Your task to perform on an android device: Open ESPN.com Image 0: 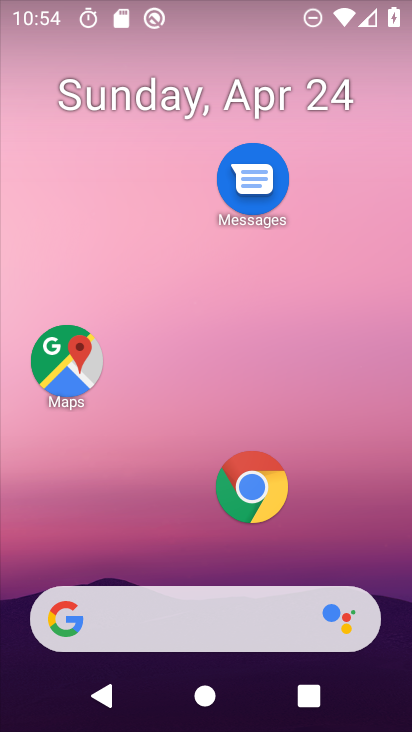
Step 0: click (269, 486)
Your task to perform on an android device: Open ESPN.com Image 1: 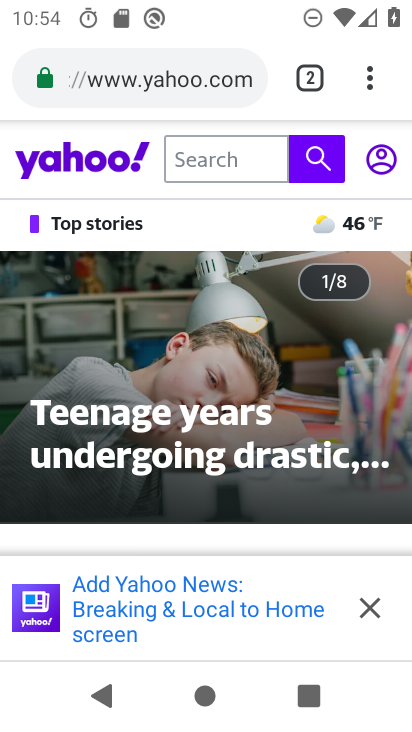
Step 1: click (153, 80)
Your task to perform on an android device: Open ESPN.com Image 2: 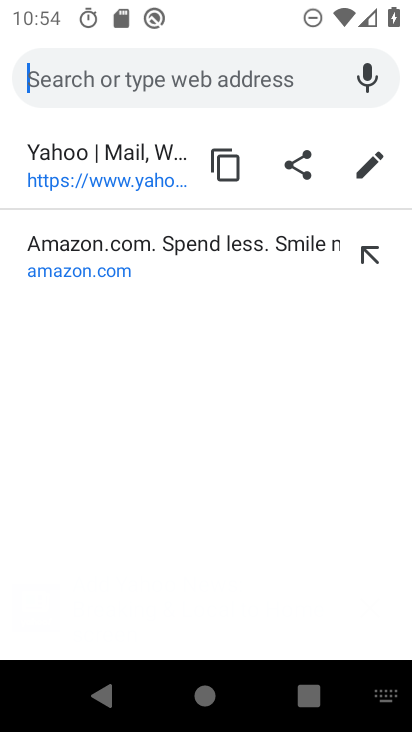
Step 2: type "ESPN.com"
Your task to perform on an android device: Open ESPN.com Image 3: 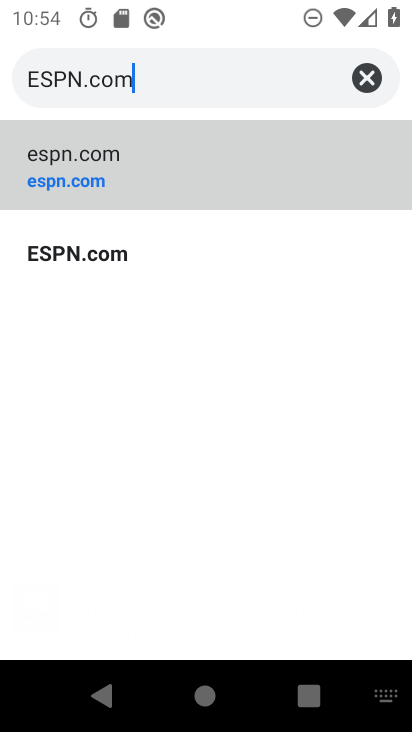
Step 3: click (92, 255)
Your task to perform on an android device: Open ESPN.com Image 4: 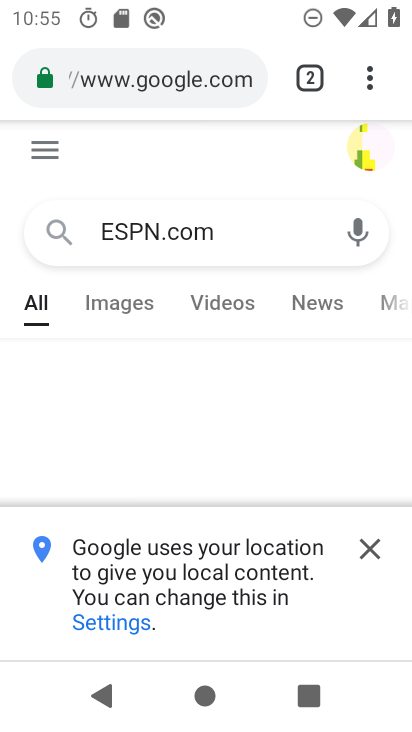
Step 4: click (373, 547)
Your task to perform on an android device: Open ESPN.com Image 5: 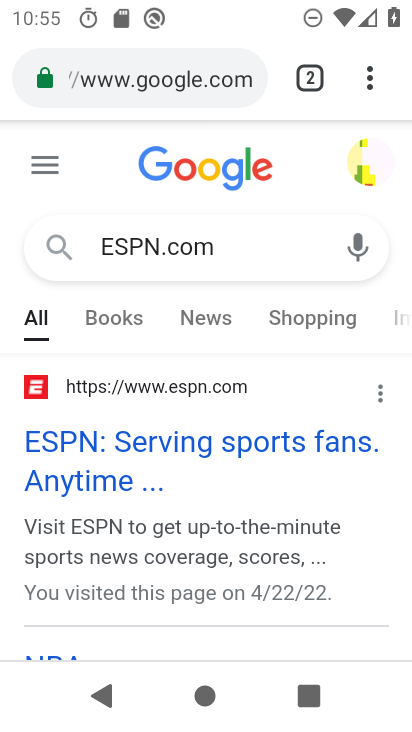
Step 5: task complete